Your task to perform on an android device: What's the weather? Image 0: 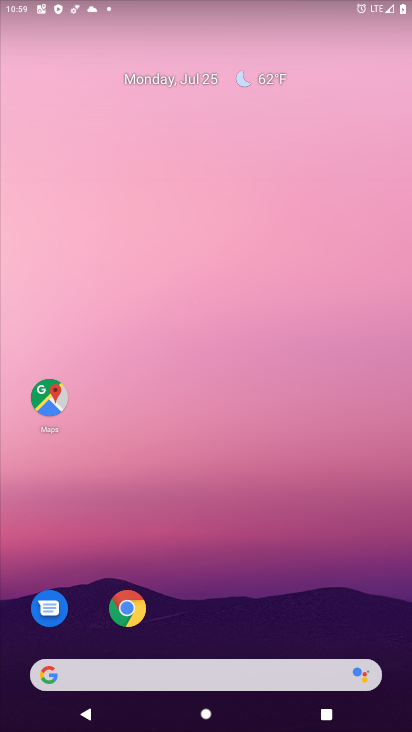
Step 0: click (177, 676)
Your task to perform on an android device: What's the weather? Image 1: 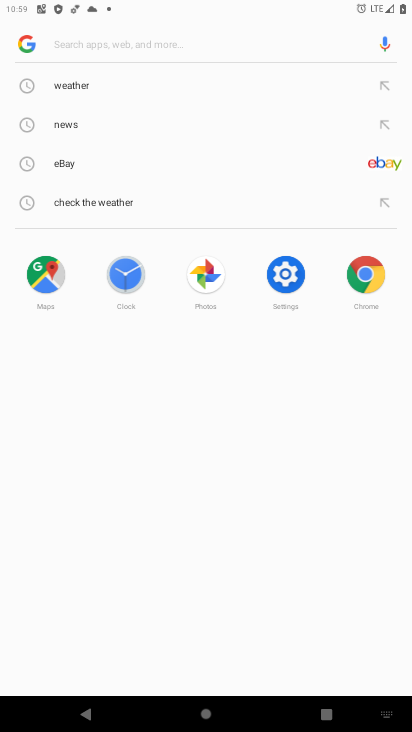
Step 1: click (80, 85)
Your task to perform on an android device: What's the weather? Image 2: 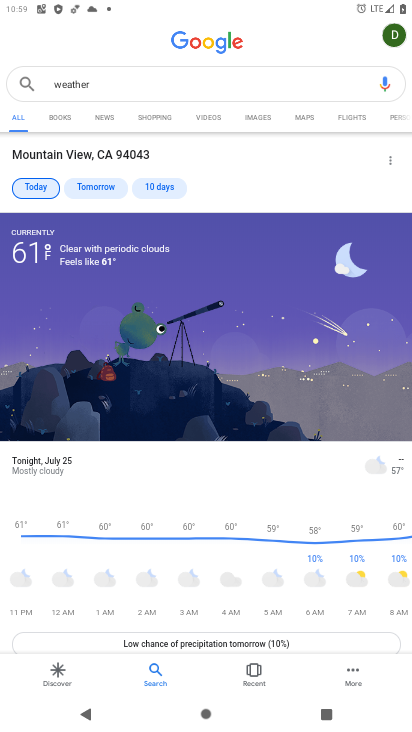
Step 2: task complete